Your task to perform on an android device: Do I have any events tomorrow? Image 0: 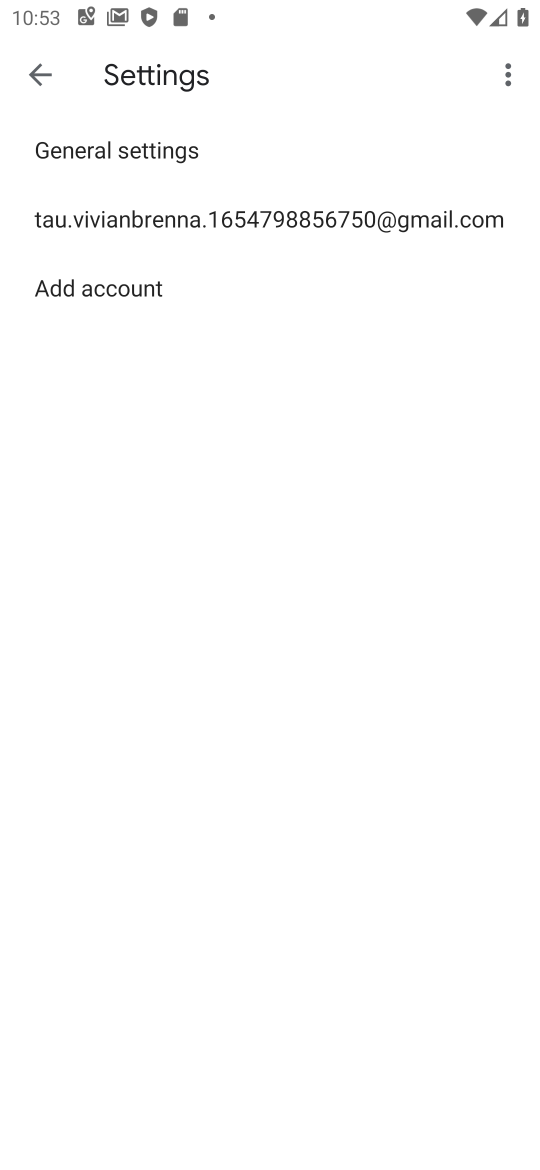
Step 0: press home button
Your task to perform on an android device: Do I have any events tomorrow? Image 1: 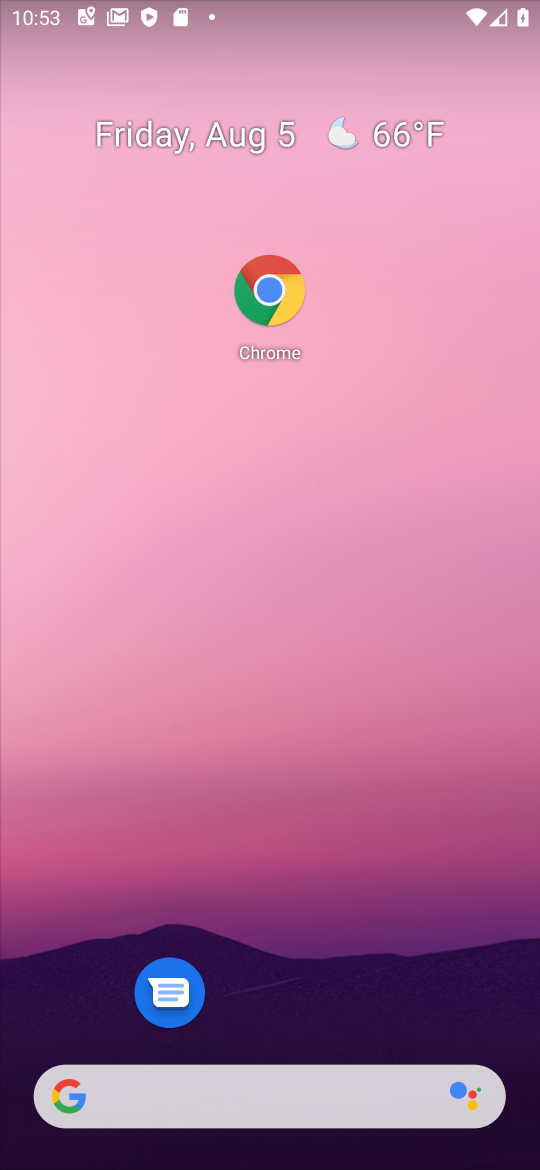
Step 1: drag from (472, 1021) to (536, 758)
Your task to perform on an android device: Do I have any events tomorrow? Image 2: 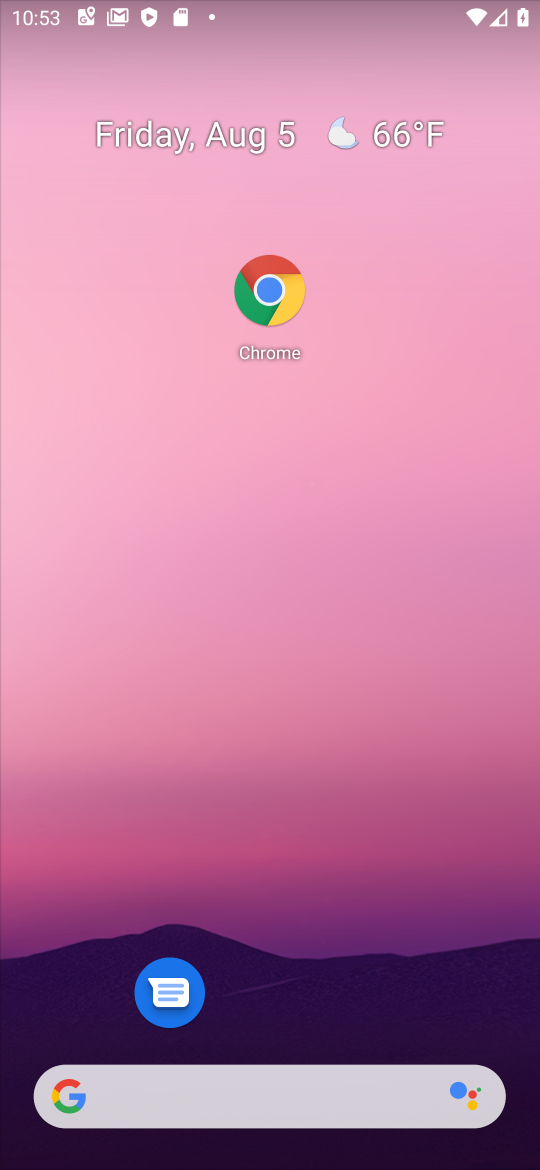
Step 2: drag from (313, 1065) to (185, 20)
Your task to perform on an android device: Do I have any events tomorrow? Image 3: 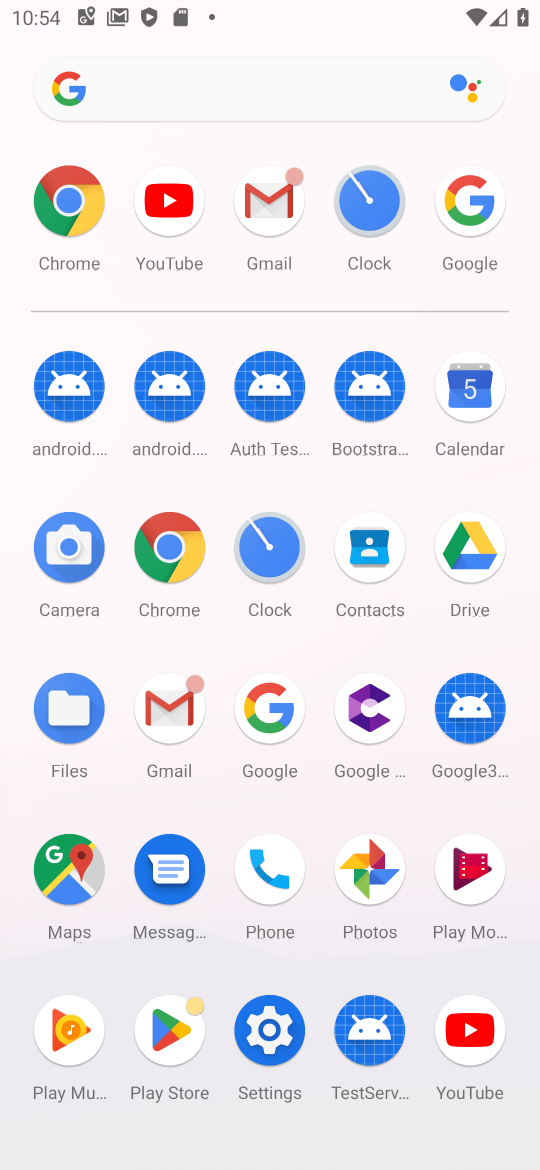
Step 3: click (464, 424)
Your task to perform on an android device: Do I have any events tomorrow? Image 4: 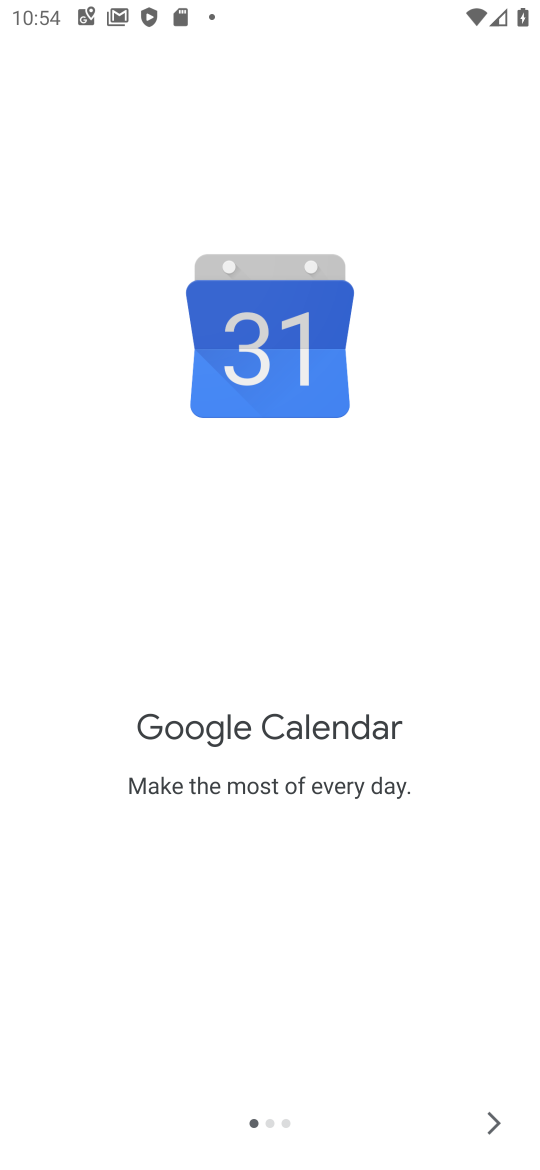
Step 4: click (481, 1122)
Your task to perform on an android device: Do I have any events tomorrow? Image 5: 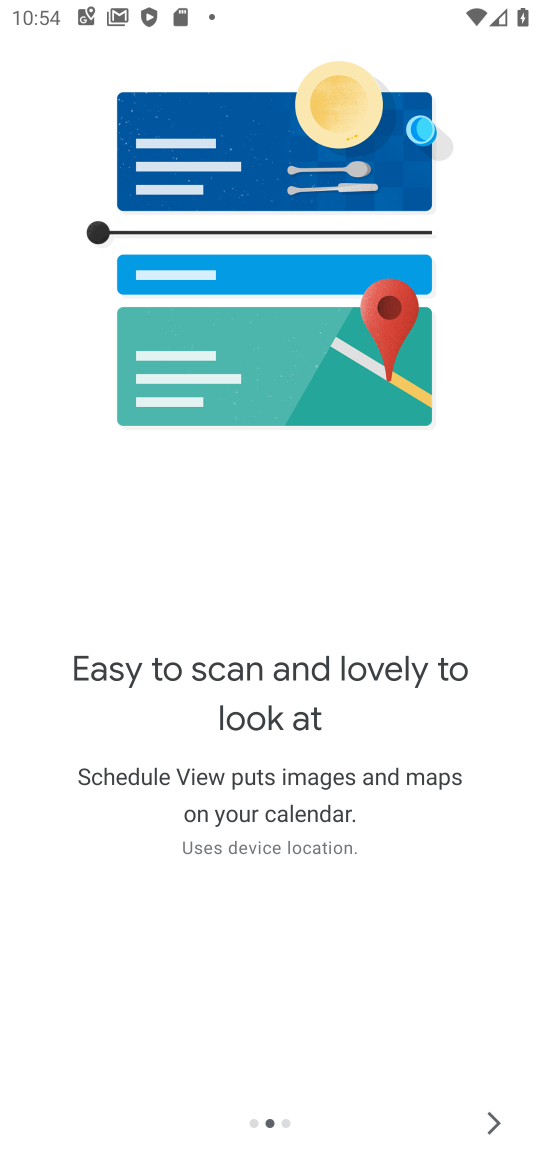
Step 5: click (472, 1136)
Your task to perform on an android device: Do I have any events tomorrow? Image 6: 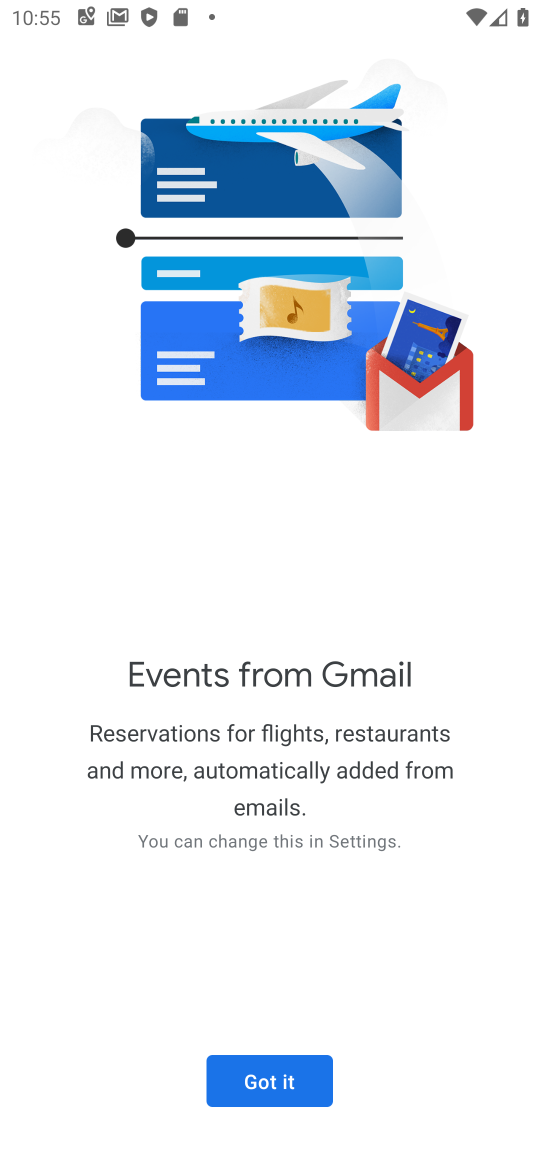
Step 6: click (273, 1085)
Your task to perform on an android device: Do I have any events tomorrow? Image 7: 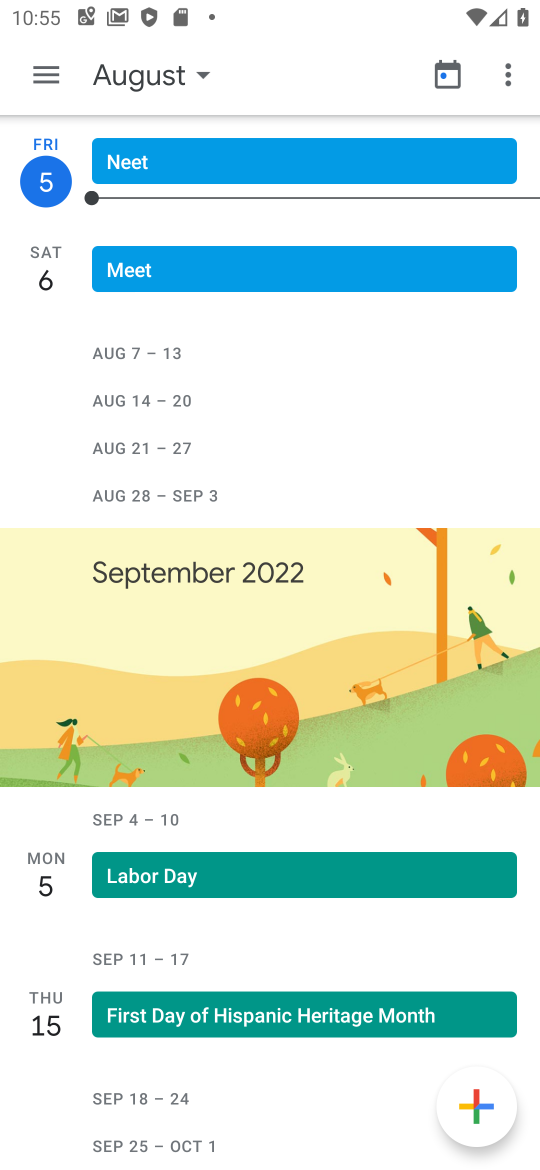
Step 7: click (146, 76)
Your task to perform on an android device: Do I have any events tomorrow? Image 8: 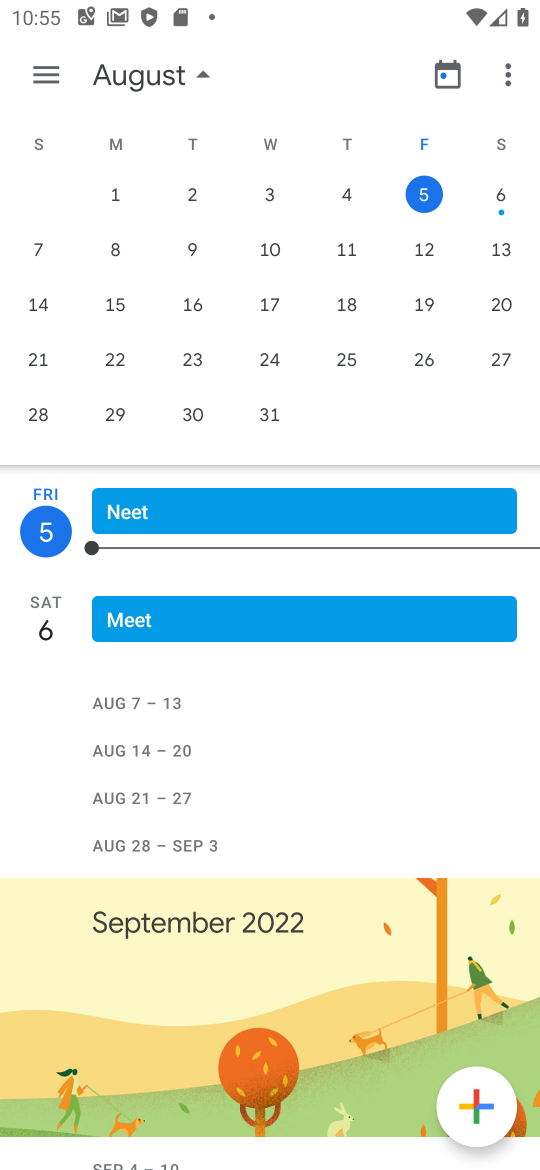
Step 8: click (502, 196)
Your task to perform on an android device: Do I have any events tomorrow? Image 9: 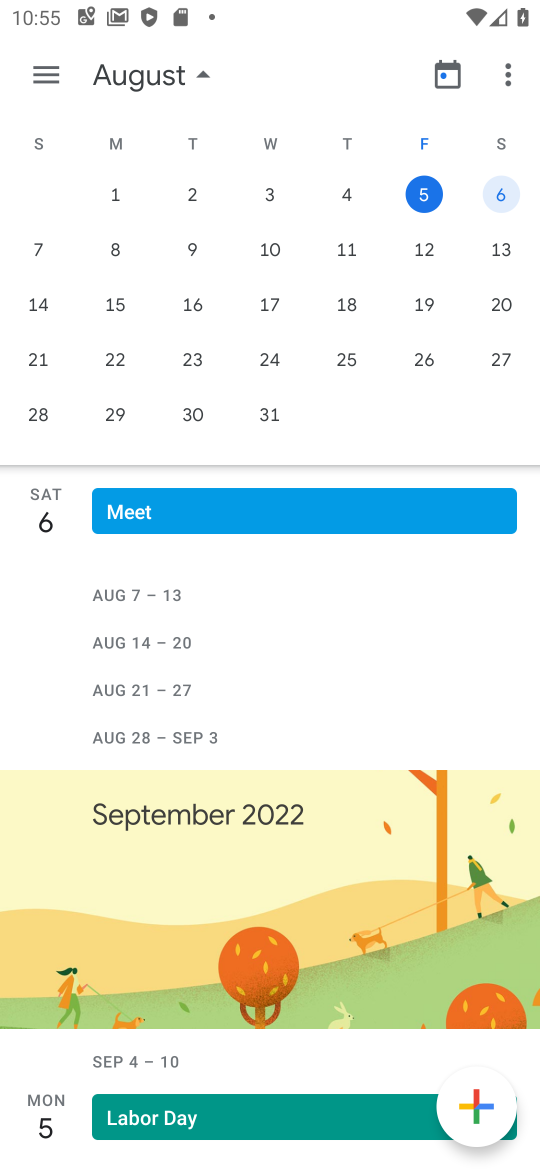
Step 9: task complete